Your task to perform on an android device: Open Yahoo.com Image 0: 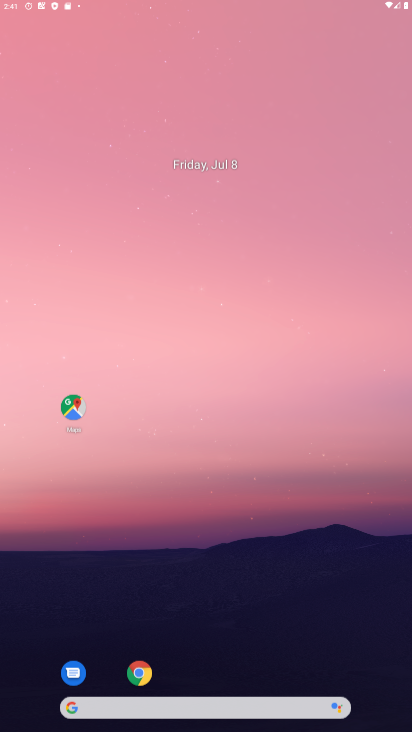
Step 0: drag from (210, 442) to (199, 336)
Your task to perform on an android device: Open Yahoo.com Image 1: 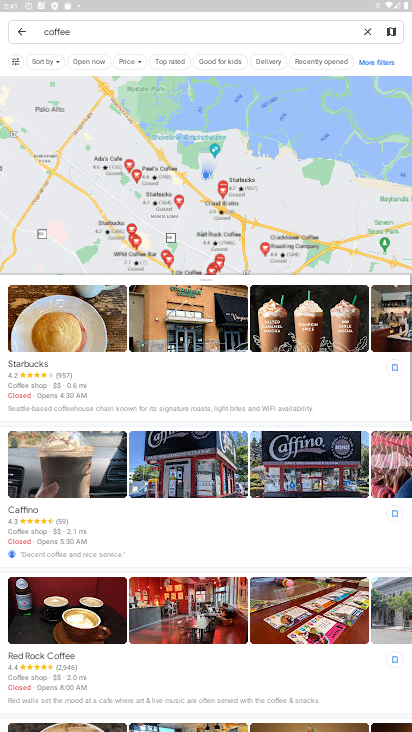
Step 1: press home button
Your task to perform on an android device: Open Yahoo.com Image 2: 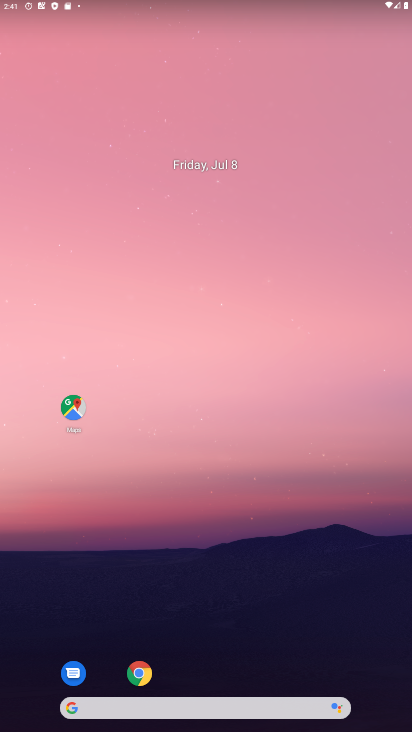
Step 2: click (145, 680)
Your task to perform on an android device: Open Yahoo.com Image 3: 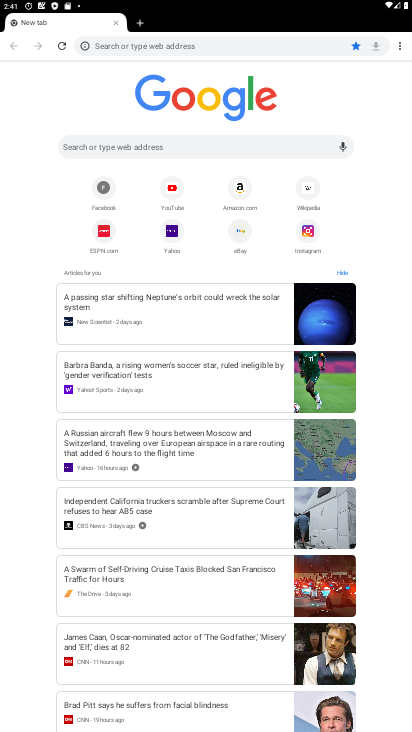
Step 3: click (171, 233)
Your task to perform on an android device: Open Yahoo.com Image 4: 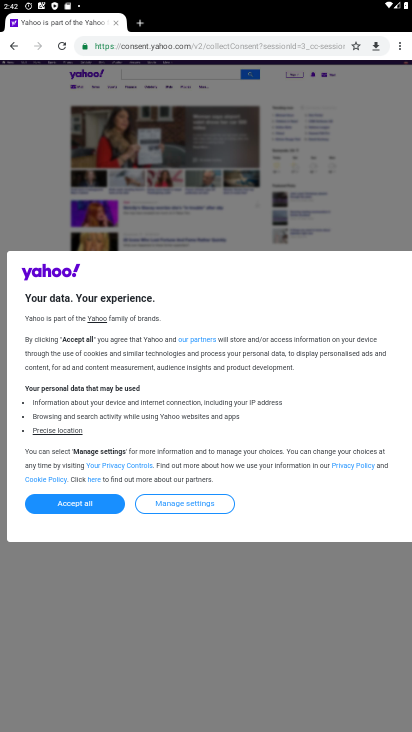
Step 4: task complete